Your task to perform on an android device: Open Google Maps and go to "Timeline" Image 0: 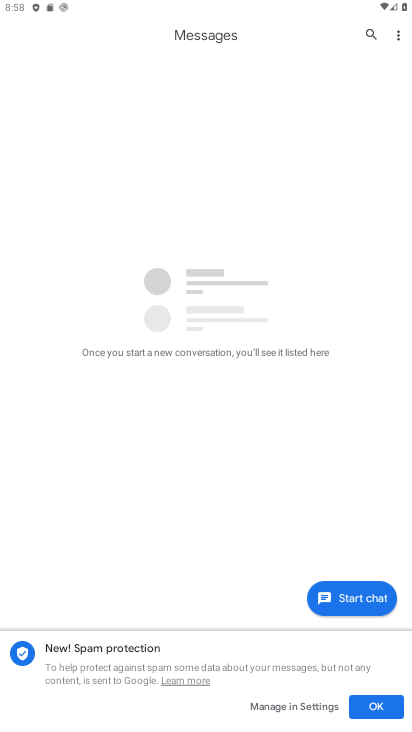
Step 0: press home button
Your task to perform on an android device: Open Google Maps and go to "Timeline" Image 1: 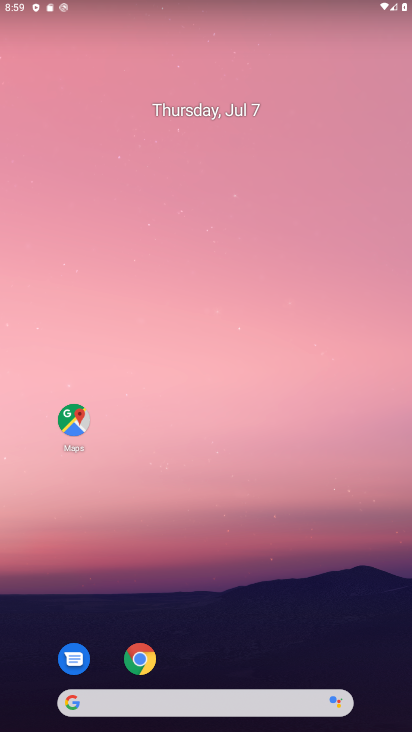
Step 1: click (68, 405)
Your task to perform on an android device: Open Google Maps and go to "Timeline" Image 2: 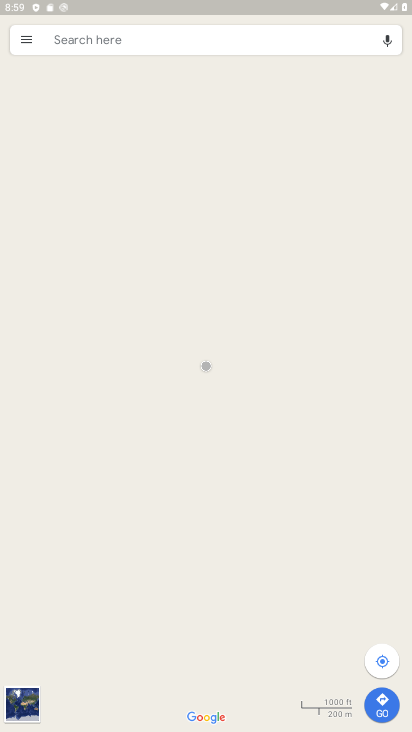
Step 2: click (19, 36)
Your task to perform on an android device: Open Google Maps and go to "Timeline" Image 3: 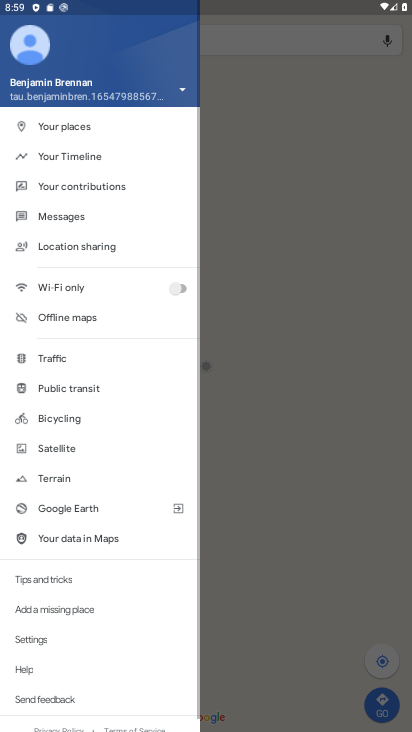
Step 3: click (95, 155)
Your task to perform on an android device: Open Google Maps and go to "Timeline" Image 4: 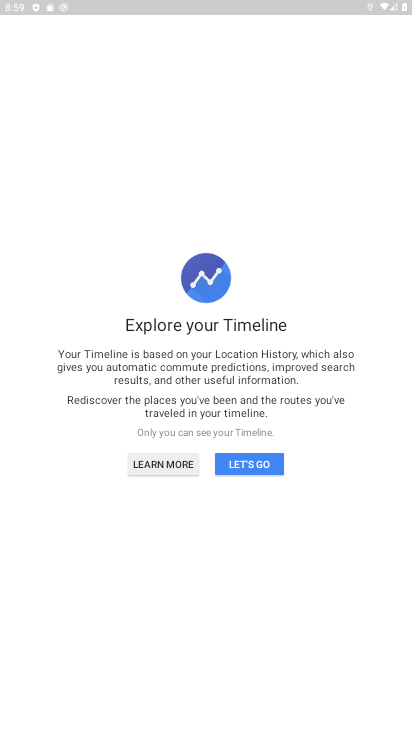
Step 4: click (253, 454)
Your task to perform on an android device: Open Google Maps and go to "Timeline" Image 5: 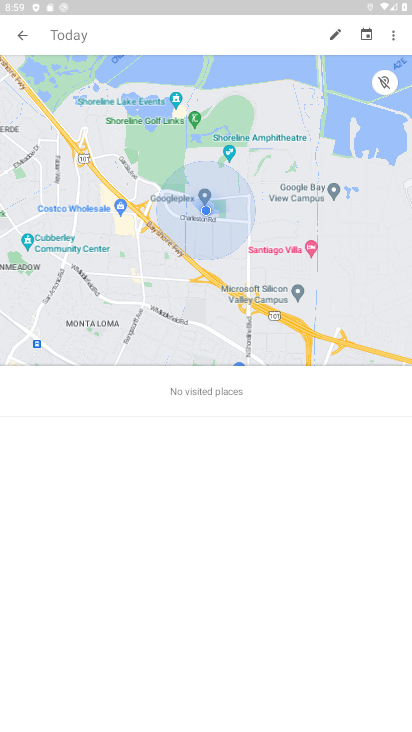
Step 5: task complete